Your task to perform on an android device: add a contact Image 0: 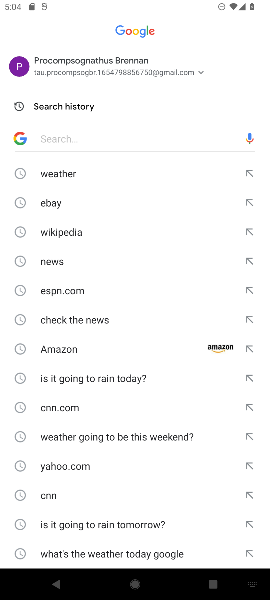
Step 0: press back button
Your task to perform on an android device: add a contact Image 1: 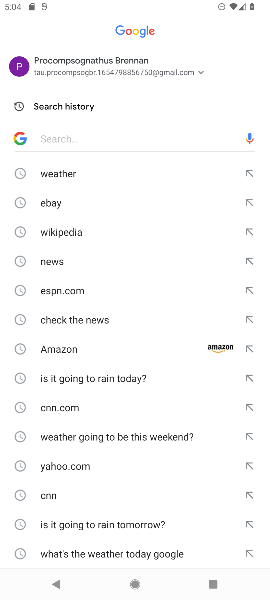
Step 1: press home button
Your task to perform on an android device: add a contact Image 2: 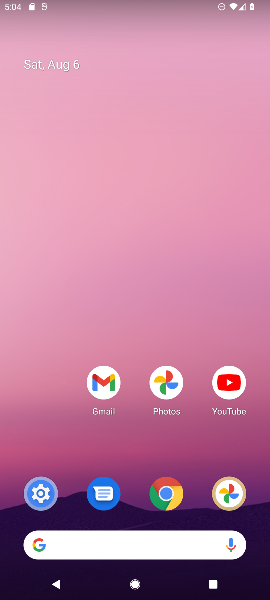
Step 2: drag from (159, 515) to (118, 262)
Your task to perform on an android device: add a contact Image 3: 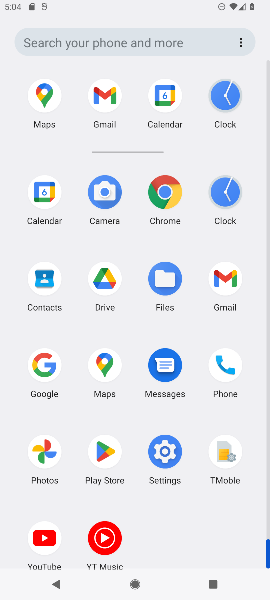
Step 3: drag from (151, 435) to (134, 232)
Your task to perform on an android device: add a contact Image 4: 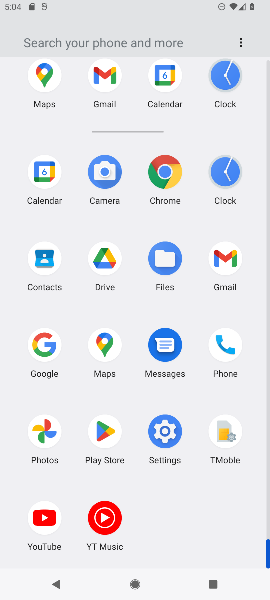
Step 4: click (41, 258)
Your task to perform on an android device: add a contact Image 5: 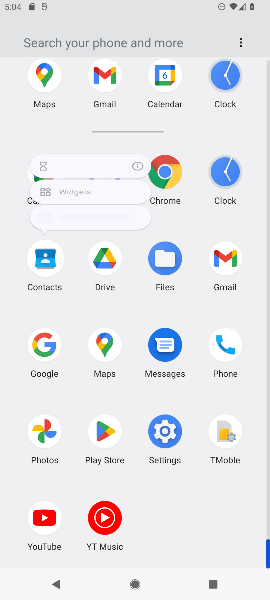
Step 5: click (42, 258)
Your task to perform on an android device: add a contact Image 6: 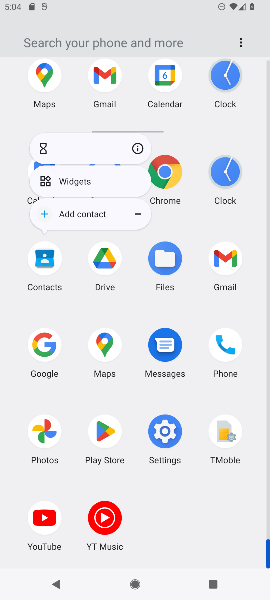
Step 6: click (42, 258)
Your task to perform on an android device: add a contact Image 7: 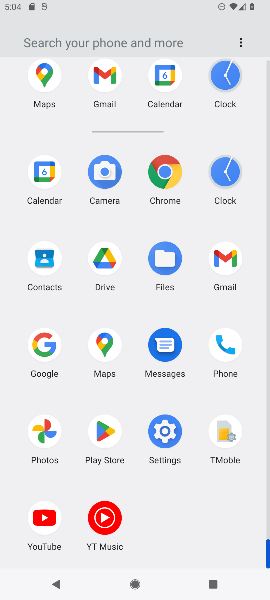
Step 7: click (41, 258)
Your task to perform on an android device: add a contact Image 8: 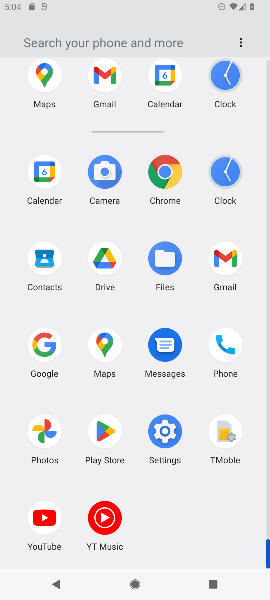
Step 8: click (43, 261)
Your task to perform on an android device: add a contact Image 9: 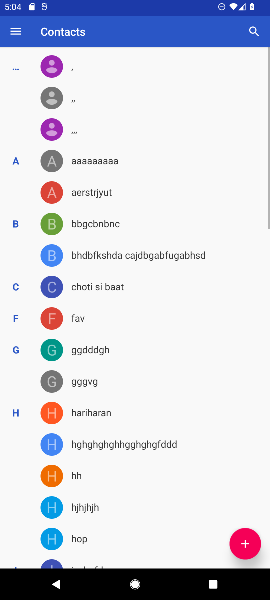
Step 9: click (43, 263)
Your task to perform on an android device: add a contact Image 10: 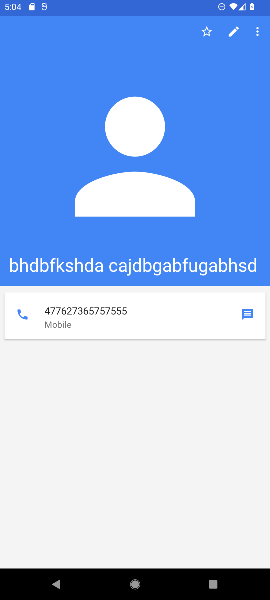
Step 10: task complete